Your task to perform on an android device: check google app version Image 0: 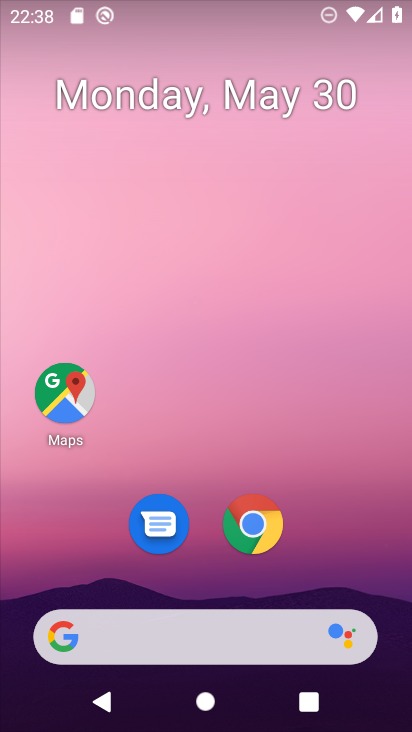
Step 0: click (163, 634)
Your task to perform on an android device: check google app version Image 1: 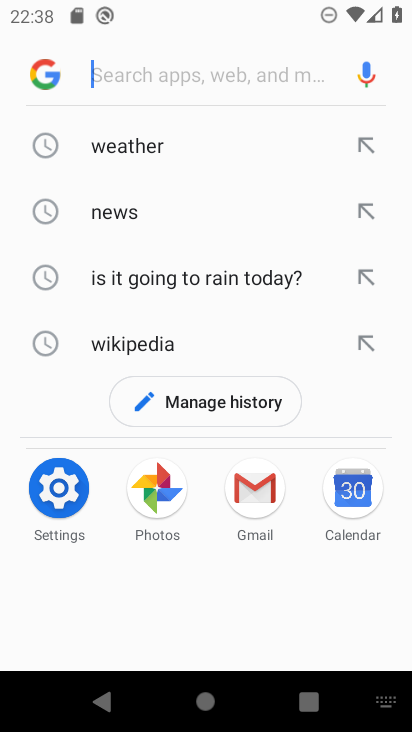
Step 1: click (43, 71)
Your task to perform on an android device: check google app version Image 2: 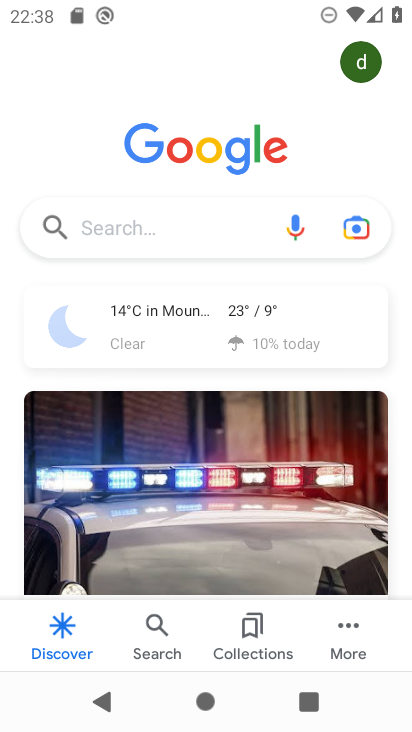
Step 2: click (350, 631)
Your task to perform on an android device: check google app version Image 3: 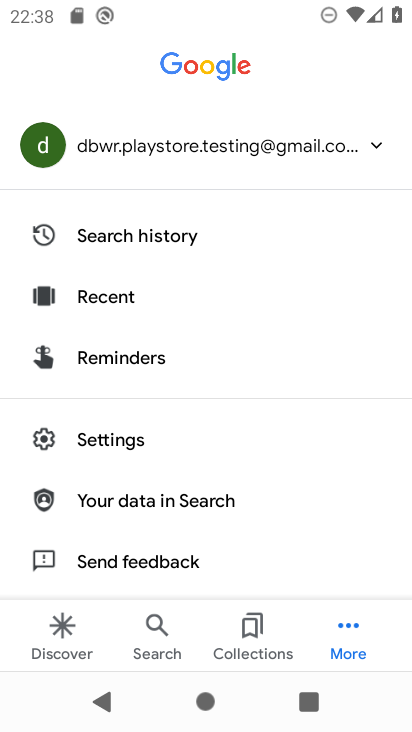
Step 3: click (161, 448)
Your task to perform on an android device: check google app version Image 4: 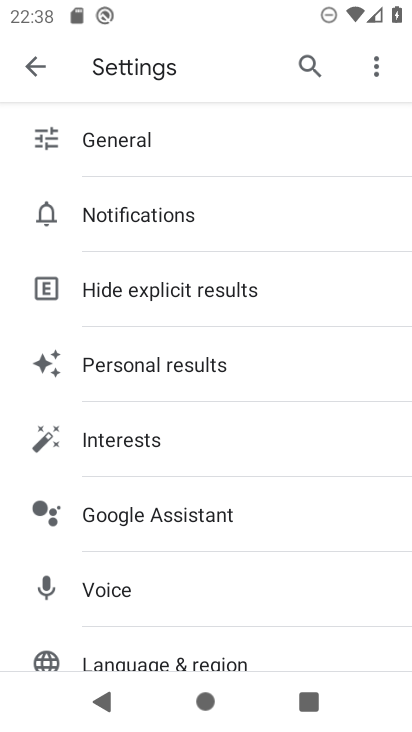
Step 4: drag from (182, 601) to (207, 351)
Your task to perform on an android device: check google app version Image 5: 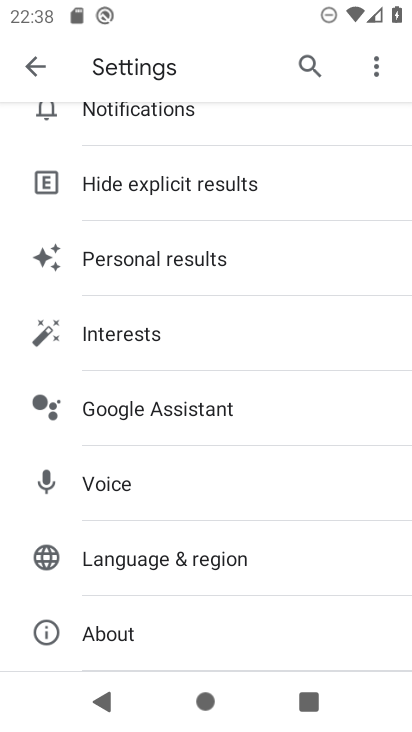
Step 5: click (185, 643)
Your task to perform on an android device: check google app version Image 6: 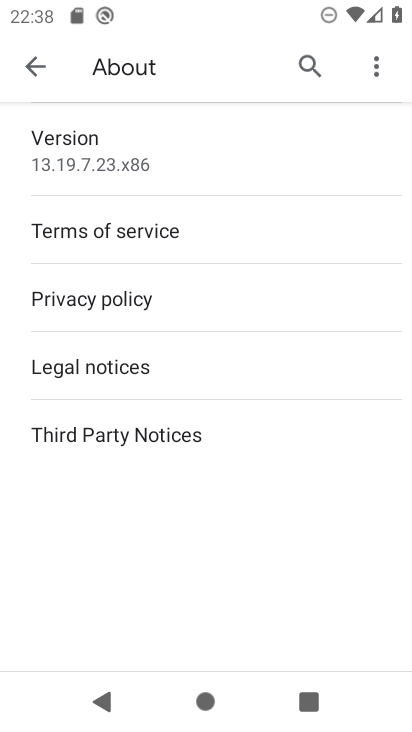
Step 6: task complete